Your task to perform on an android device: turn vacation reply on in the gmail app Image 0: 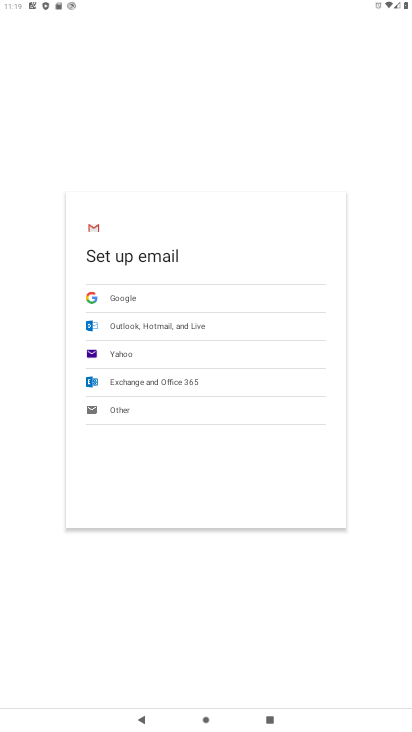
Step 0: press home button
Your task to perform on an android device: turn vacation reply on in the gmail app Image 1: 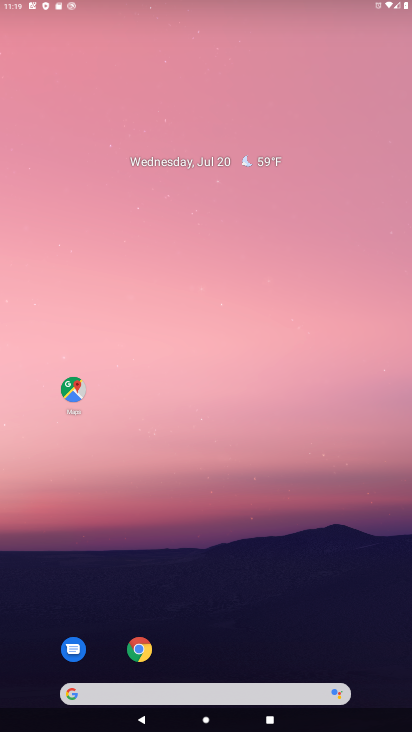
Step 1: drag from (216, 635) to (217, 60)
Your task to perform on an android device: turn vacation reply on in the gmail app Image 2: 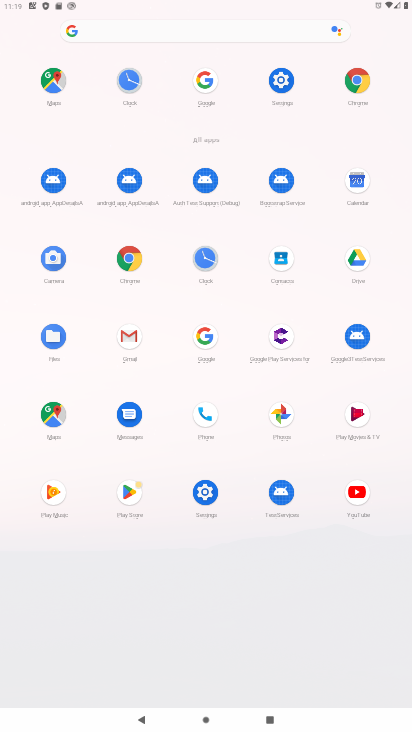
Step 2: click (125, 335)
Your task to perform on an android device: turn vacation reply on in the gmail app Image 3: 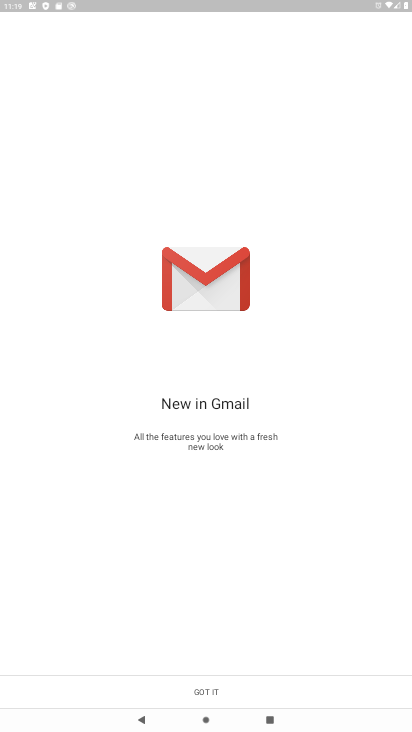
Step 3: click (200, 690)
Your task to perform on an android device: turn vacation reply on in the gmail app Image 4: 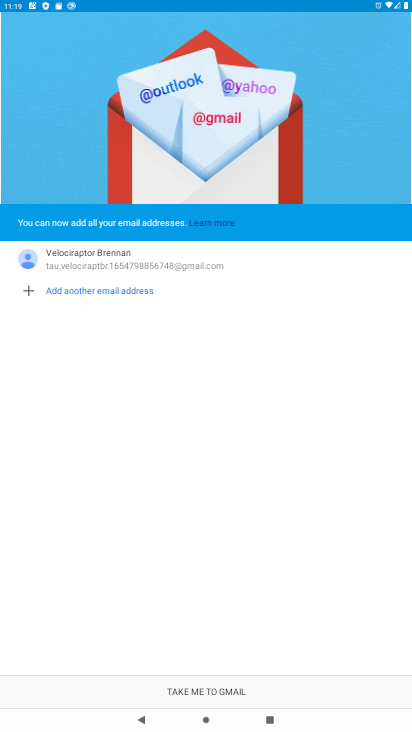
Step 4: click (200, 690)
Your task to perform on an android device: turn vacation reply on in the gmail app Image 5: 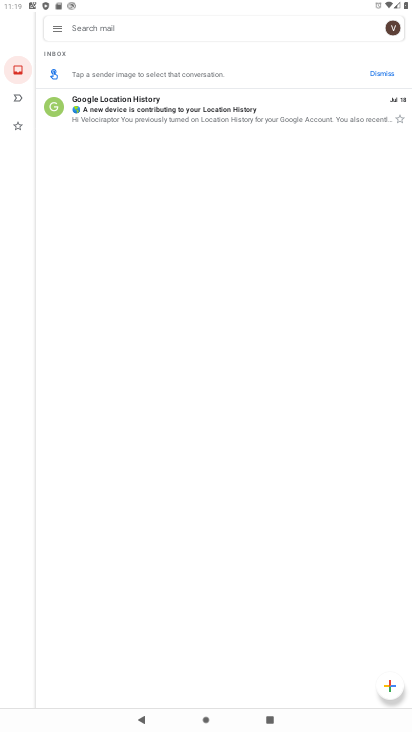
Step 5: click (58, 27)
Your task to perform on an android device: turn vacation reply on in the gmail app Image 6: 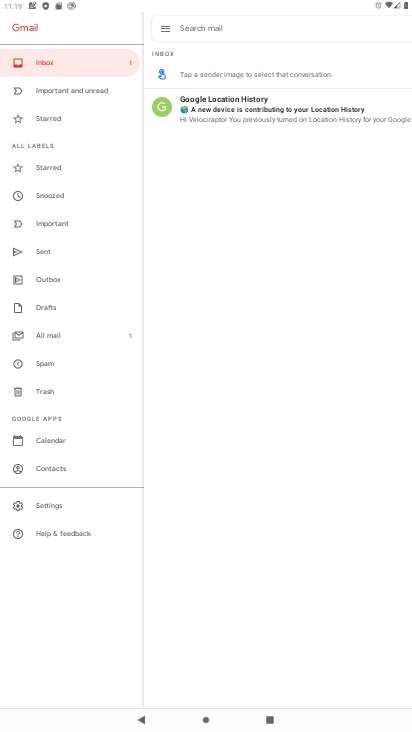
Step 6: click (62, 503)
Your task to perform on an android device: turn vacation reply on in the gmail app Image 7: 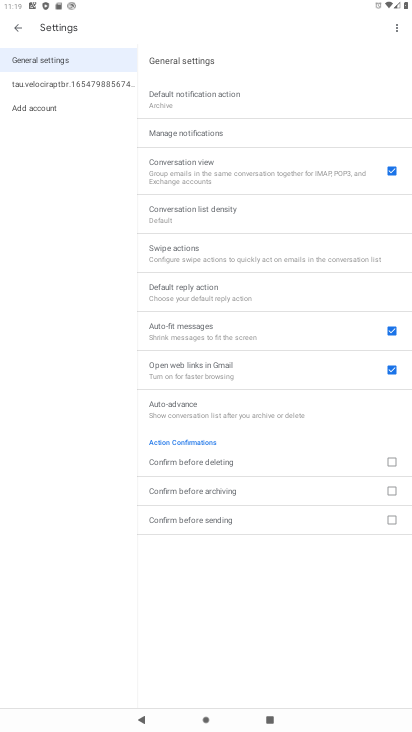
Step 7: click (85, 82)
Your task to perform on an android device: turn vacation reply on in the gmail app Image 8: 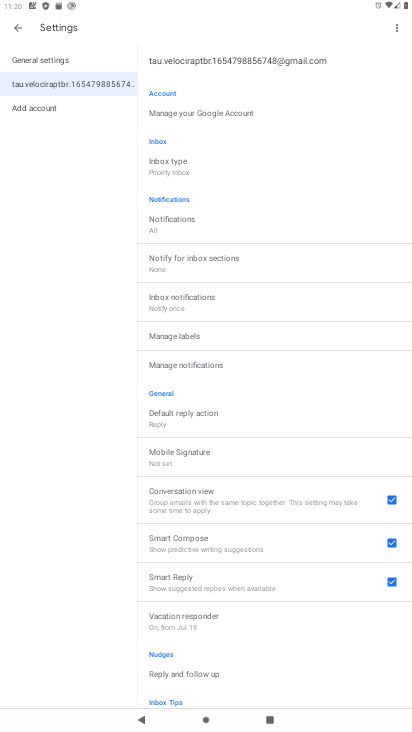
Step 8: click (221, 619)
Your task to perform on an android device: turn vacation reply on in the gmail app Image 9: 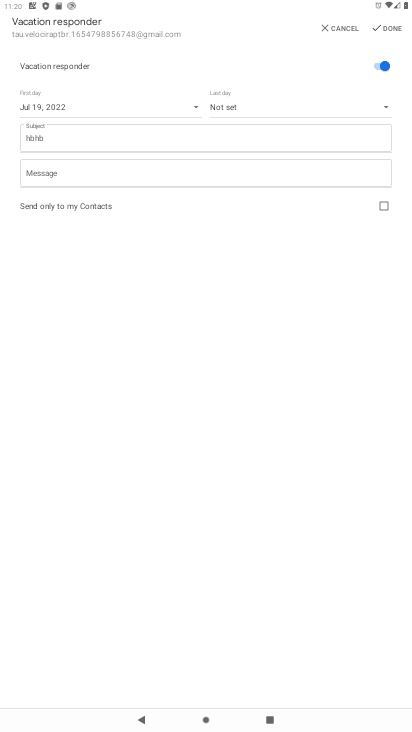
Step 9: task complete